Your task to perform on an android device: check storage Image 0: 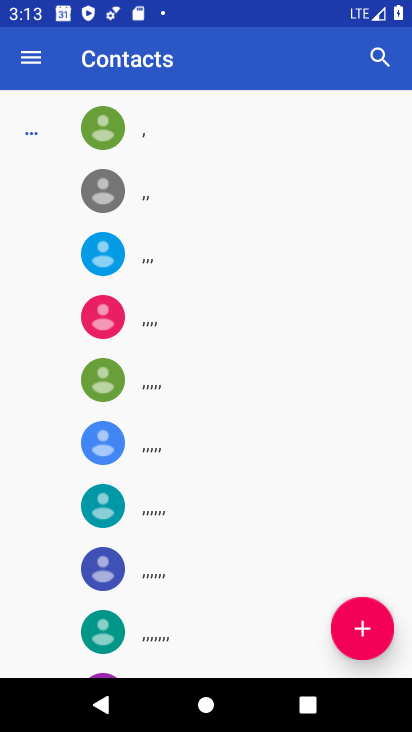
Step 0: press home button
Your task to perform on an android device: check storage Image 1: 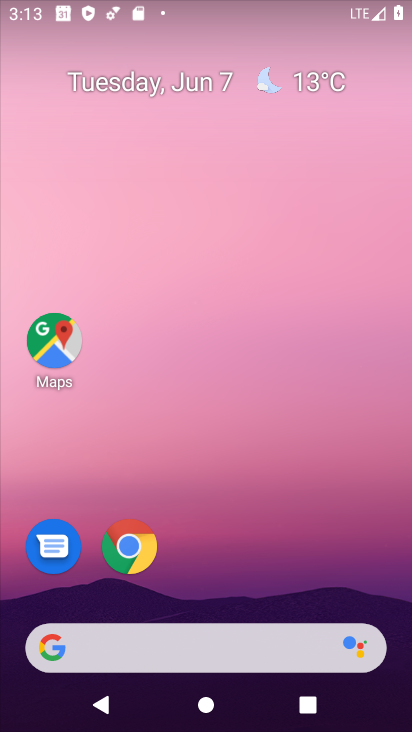
Step 1: drag from (177, 595) to (191, 183)
Your task to perform on an android device: check storage Image 2: 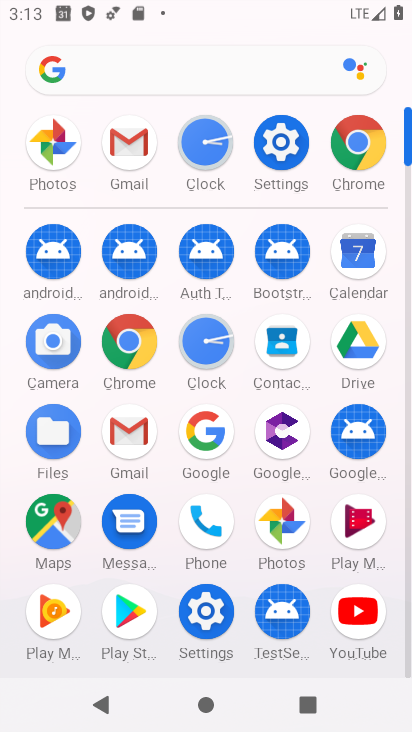
Step 2: click (286, 140)
Your task to perform on an android device: check storage Image 3: 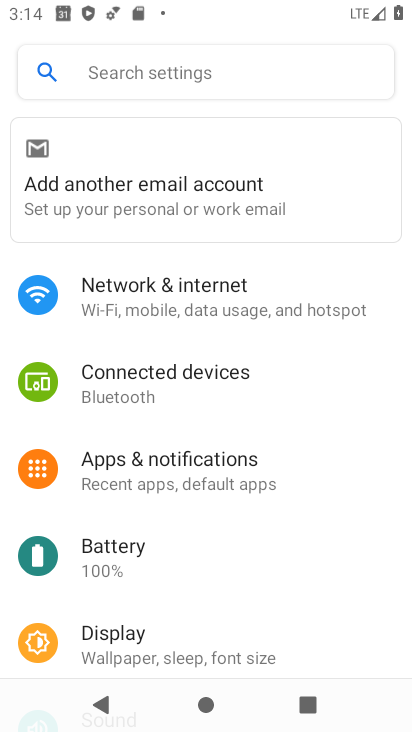
Step 3: drag from (210, 597) to (286, 214)
Your task to perform on an android device: check storage Image 4: 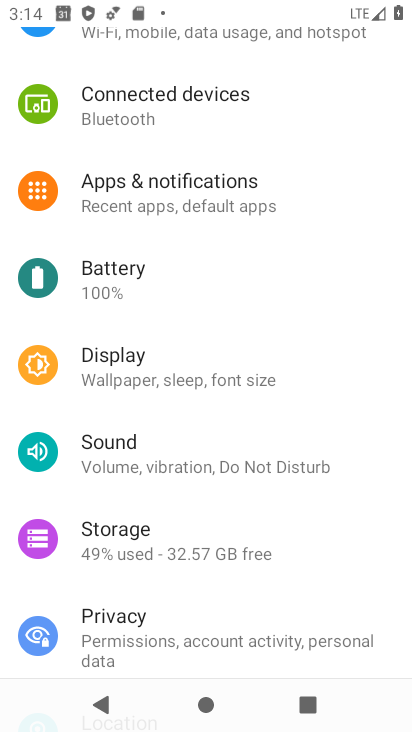
Step 4: drag from (196, 558) to (220, 271)
Your task to perform on an android device: check storage Image 5: 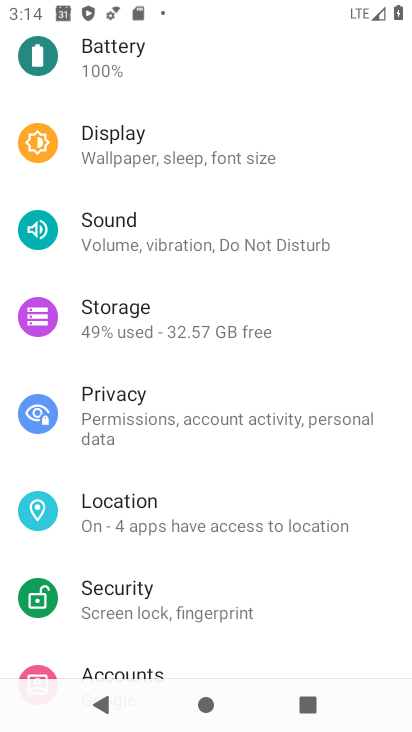
Step 5: click (110, 328)
Your task to perform on an android device: check storage Image 6: 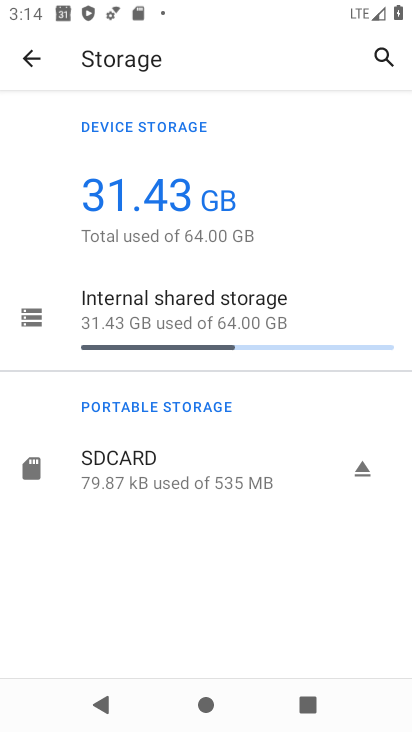
Step 6: task complete